Your task to perform on an android device: change your default location settings in chrome Image 0: 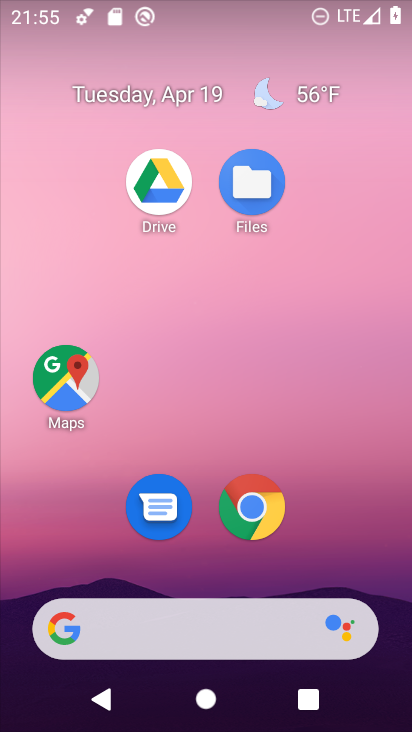
Step 0: click (271, 501)
Your task to perform on an android device: change your default location settings in chrome Image 1: 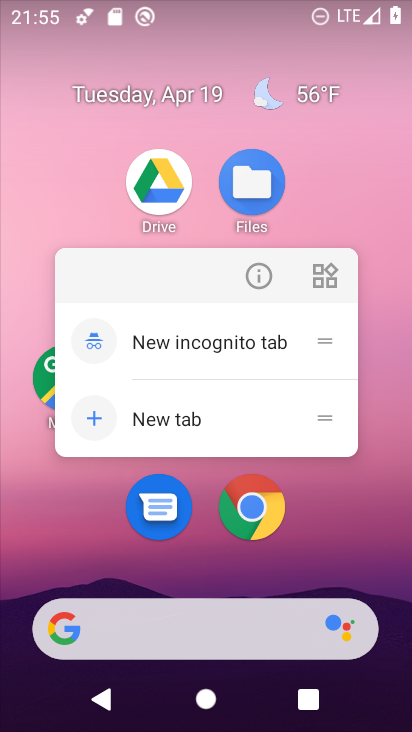
Step 1: click (271, 501)
Your task to perform on an android device: change your default location settings in chrome Image 2: 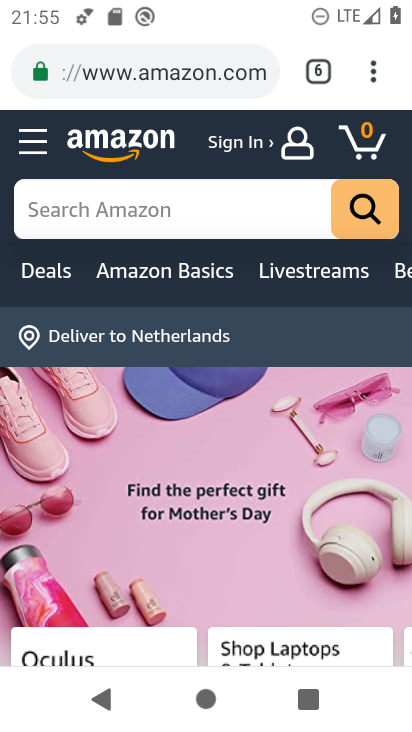
Step 2: drag from (372, 72) to (233, 497)
Your task to perform on an android device: change your default location settings in chrome Image 3: 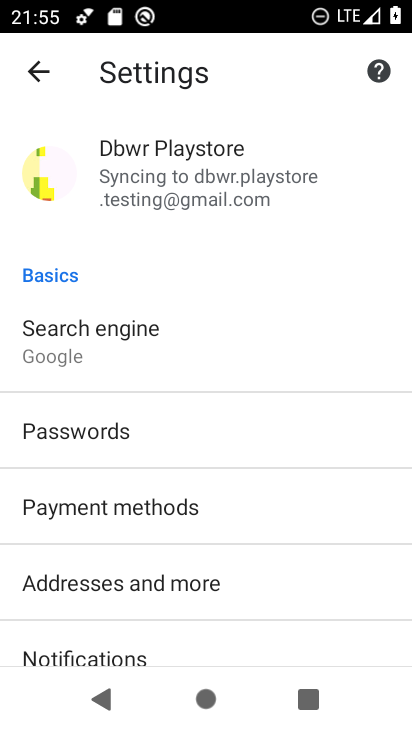
Step 3: drag from (249, 584) to (269, 179)
Your task to perform on an android device: change your default location settings in chrome Image 4: 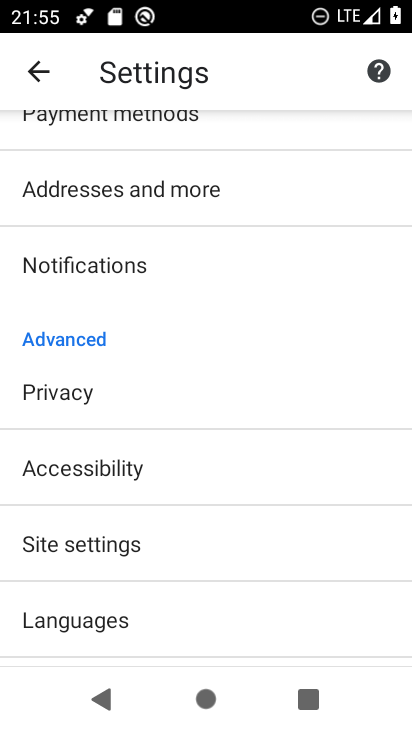
Step 4: click (177, 551)
Your task to perform on an android device: change your default location settings in chrome Image 5: 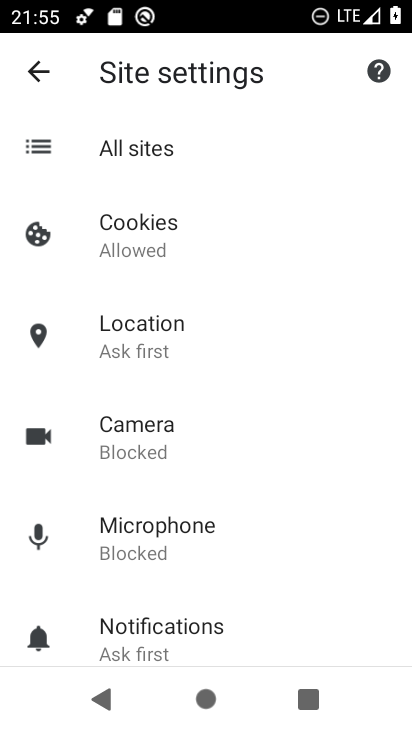
Step 5: click (238, 320)
Your task to perform on an android device: change your default location settings in chrome Image 6: 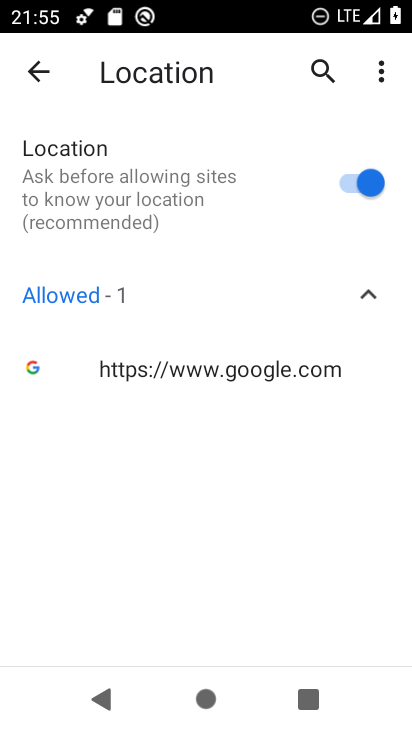
Step 6: click (345, 177)
Your task to perform on an android device: change your default location settings in chrome Image 7: 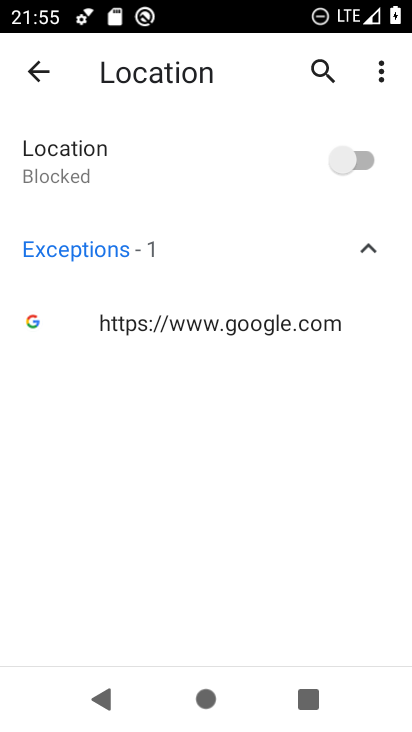
Step 7: task complete